Your task to perform on an android device: Open the calendar app, open the side menu, and click the "Day" option Image 0: 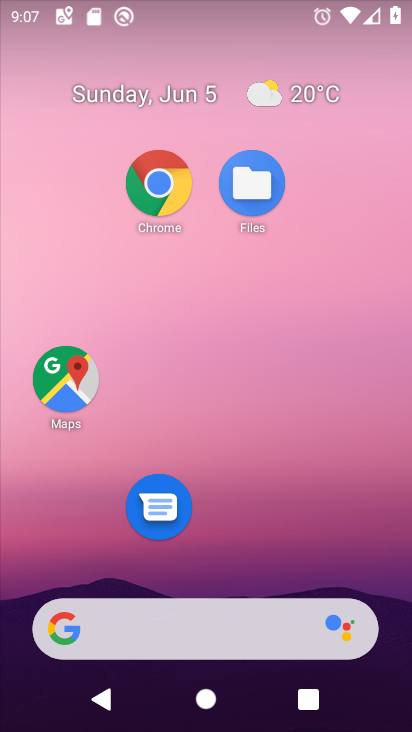
Step 0: drag from (230, 586) to (212, 13)
Your task to perform on an android device: Open the calendar app, open the side menu, and click the "Day" option Image 1: 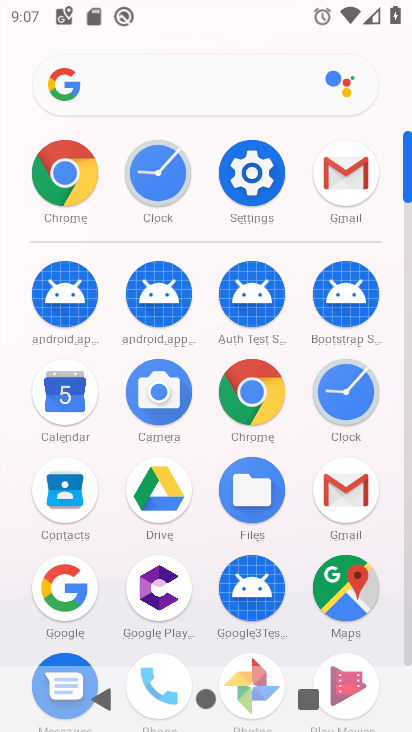
Step 1: click (66, 414)
Your task to perform on an android device: Open the calendar app, open the side menu, and click the "Day" option Image 2: 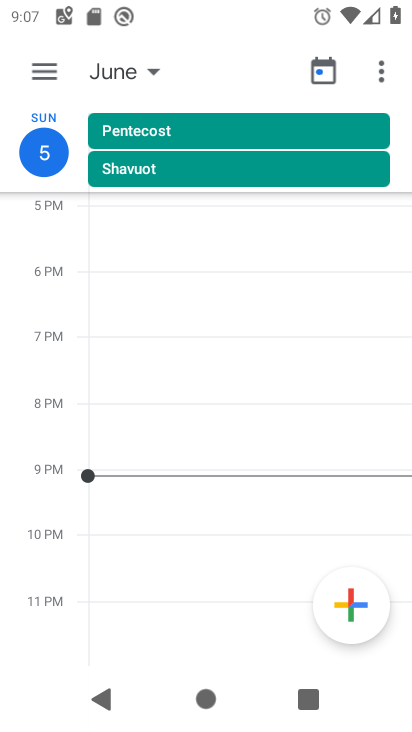
Step 2: click (48, 66)
Your task to perform on an android device: Open the calendar app, open the side menu, and click the "Day" option Image 3: 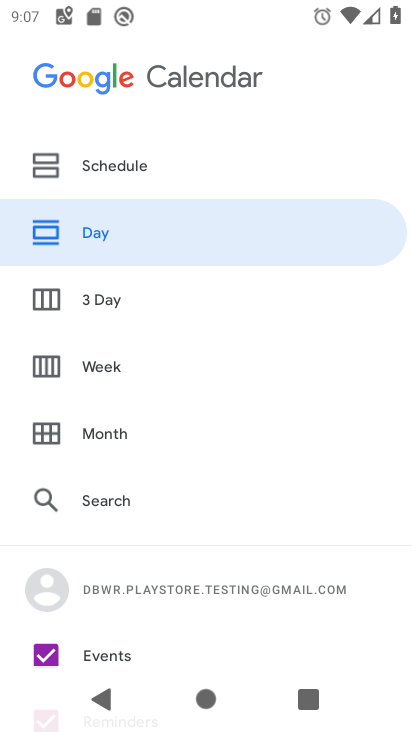
Step 3: click (100, 221)
Your task to perform on an android device: Open the calendar app, open the side menu, and click the "Day" option Image 4: 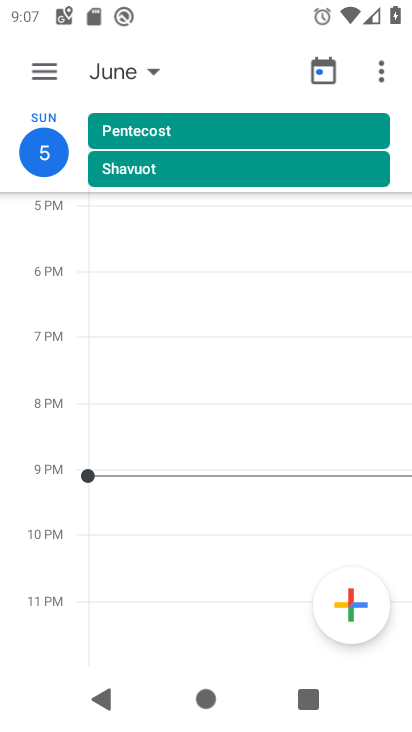
Step 4: task complete